Your task to perform on an android device: What's the weather today? Image 0: 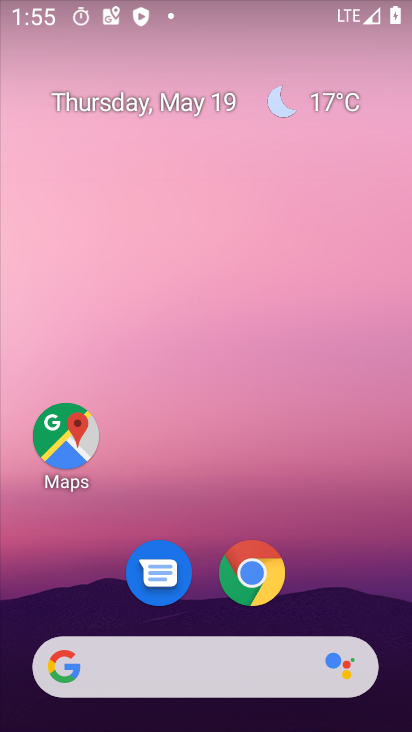
Step 0: click (327, 113)
Your task to perform on an android device: What's the weather today? Image 1: 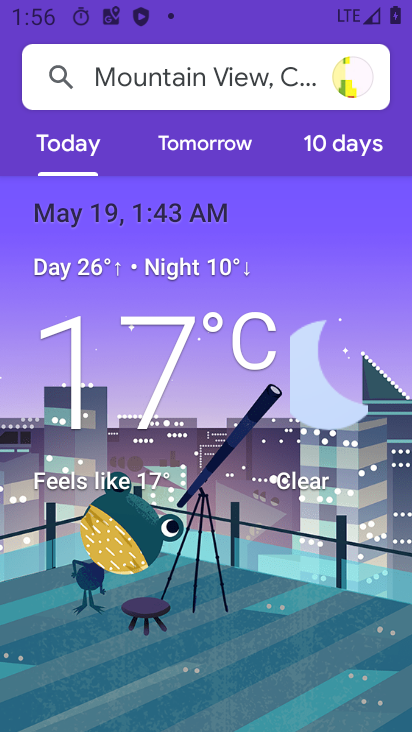
Step 1: task complete